Your task to perform on an android device: uninstall "Contacts" Image 0: 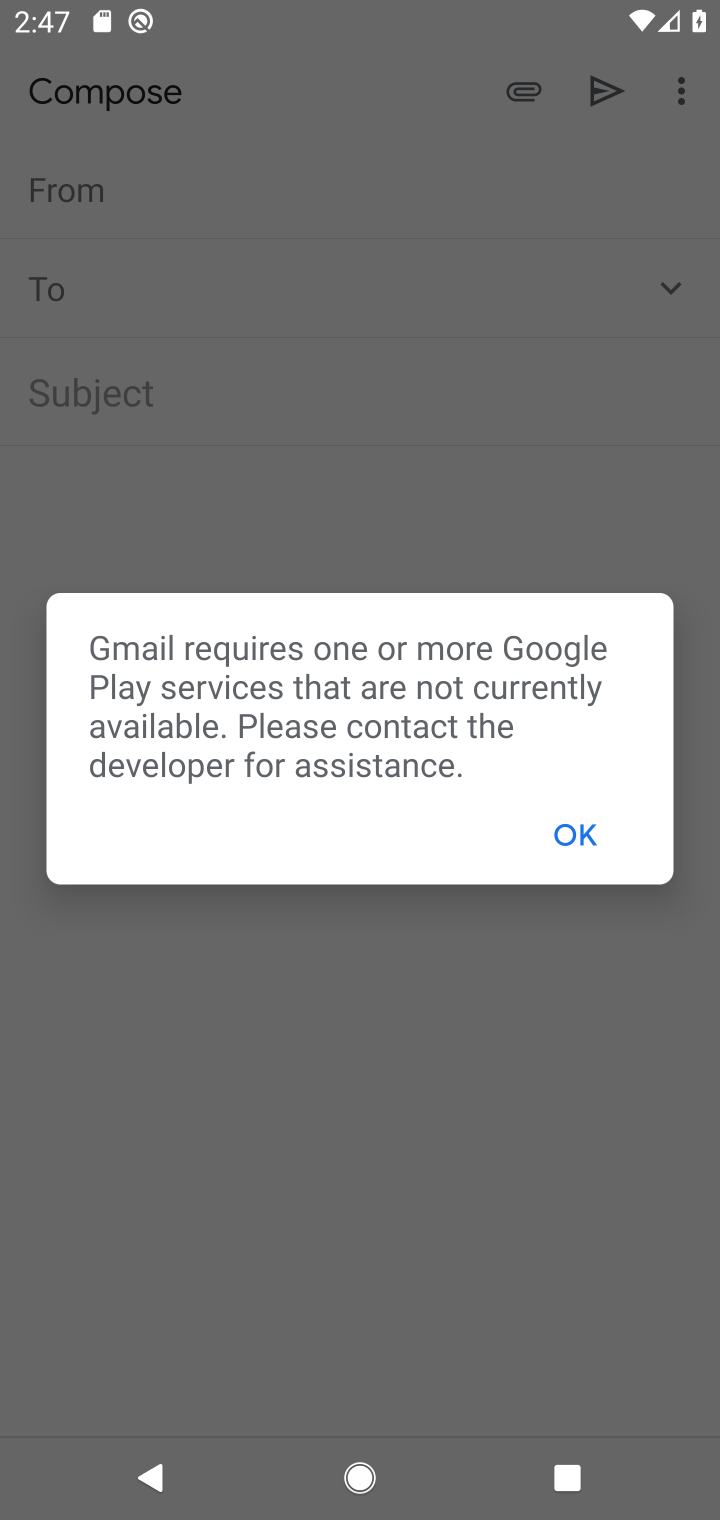
Step 0: press home button
Your task to perform on an android device: uninstall "Contacts" Image 1: 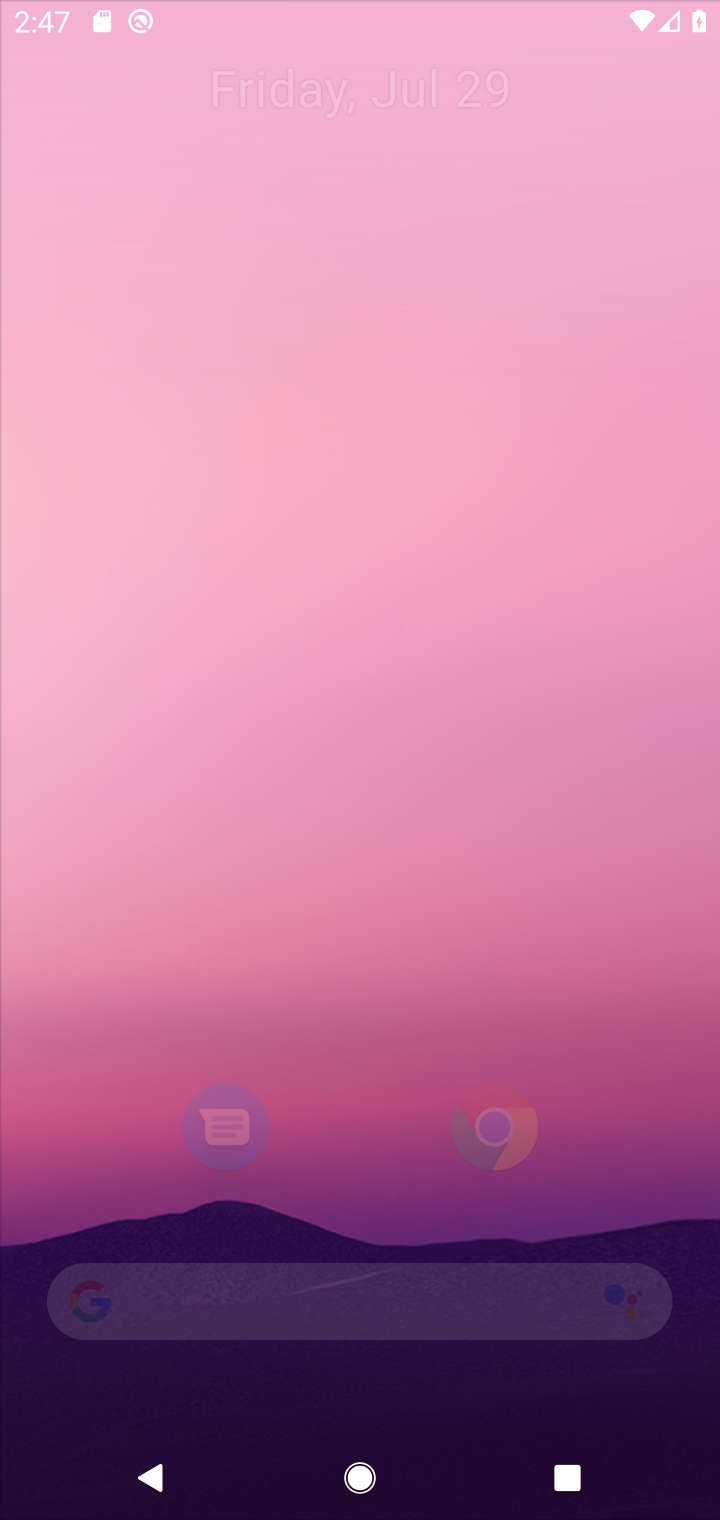
Step 1: press home button
Your task to perform on an android device: uninstall "Contacts" Image 2: 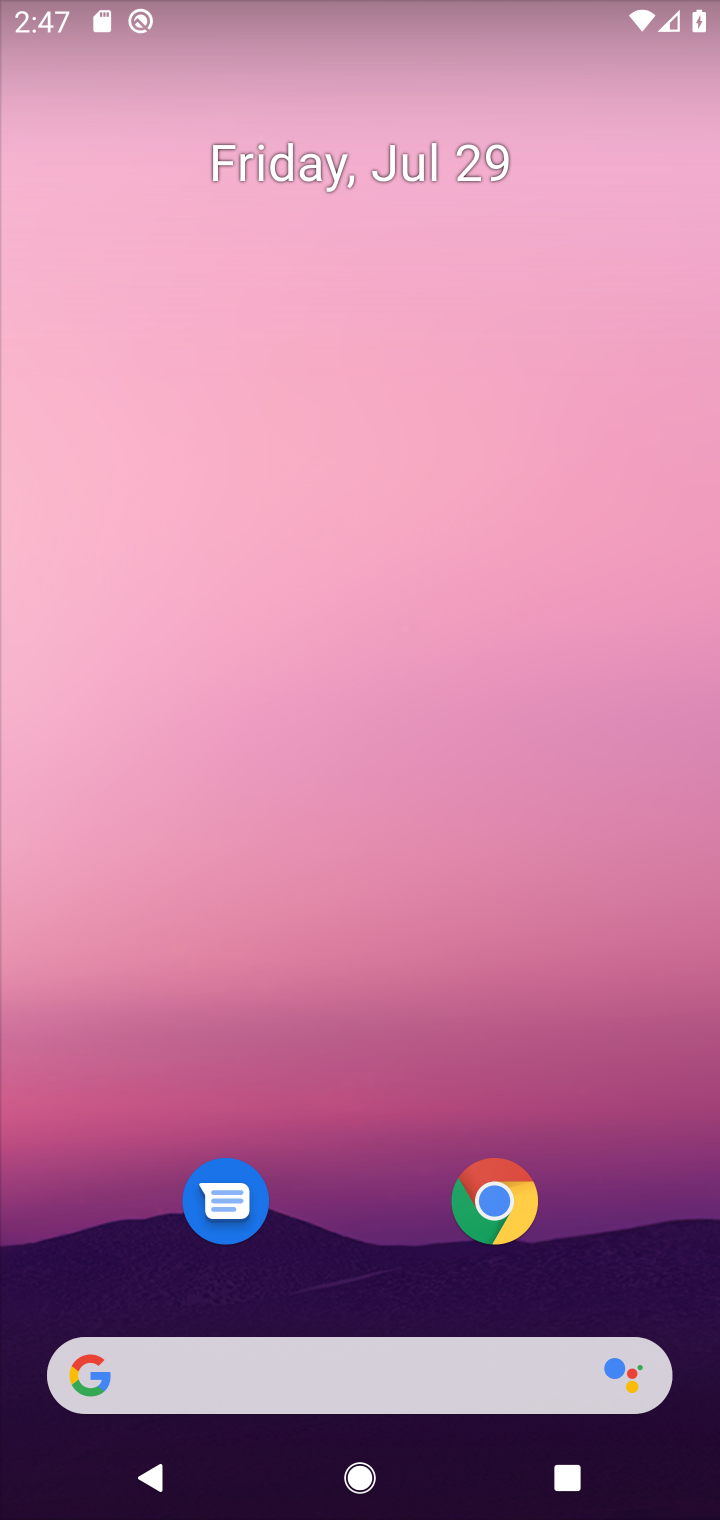
Step 2: press home button
Your task to perform on an android device: uninstall "Contacts" Image 3: 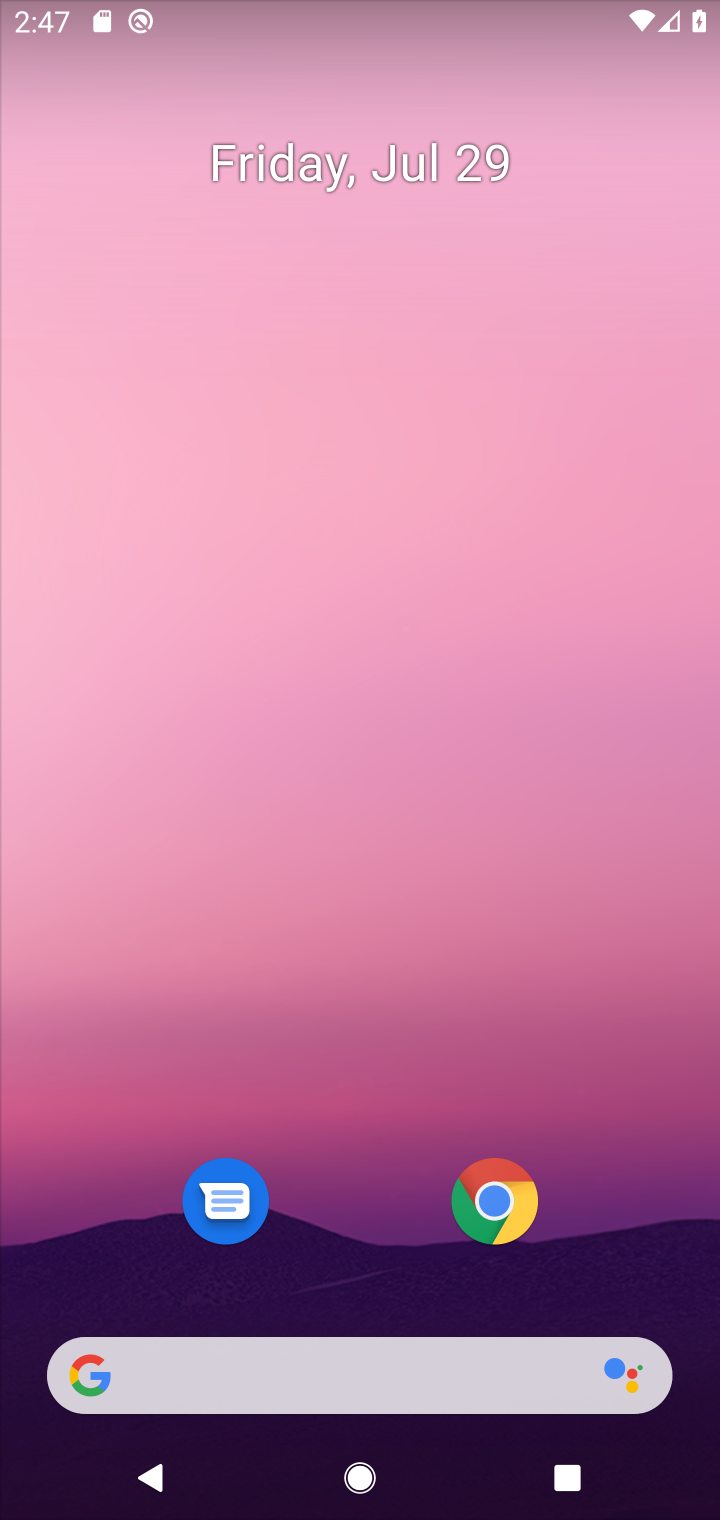
Step 3: click (556, 562)
Your task to perform on an android device: uninstall "Contacts" Image 4: 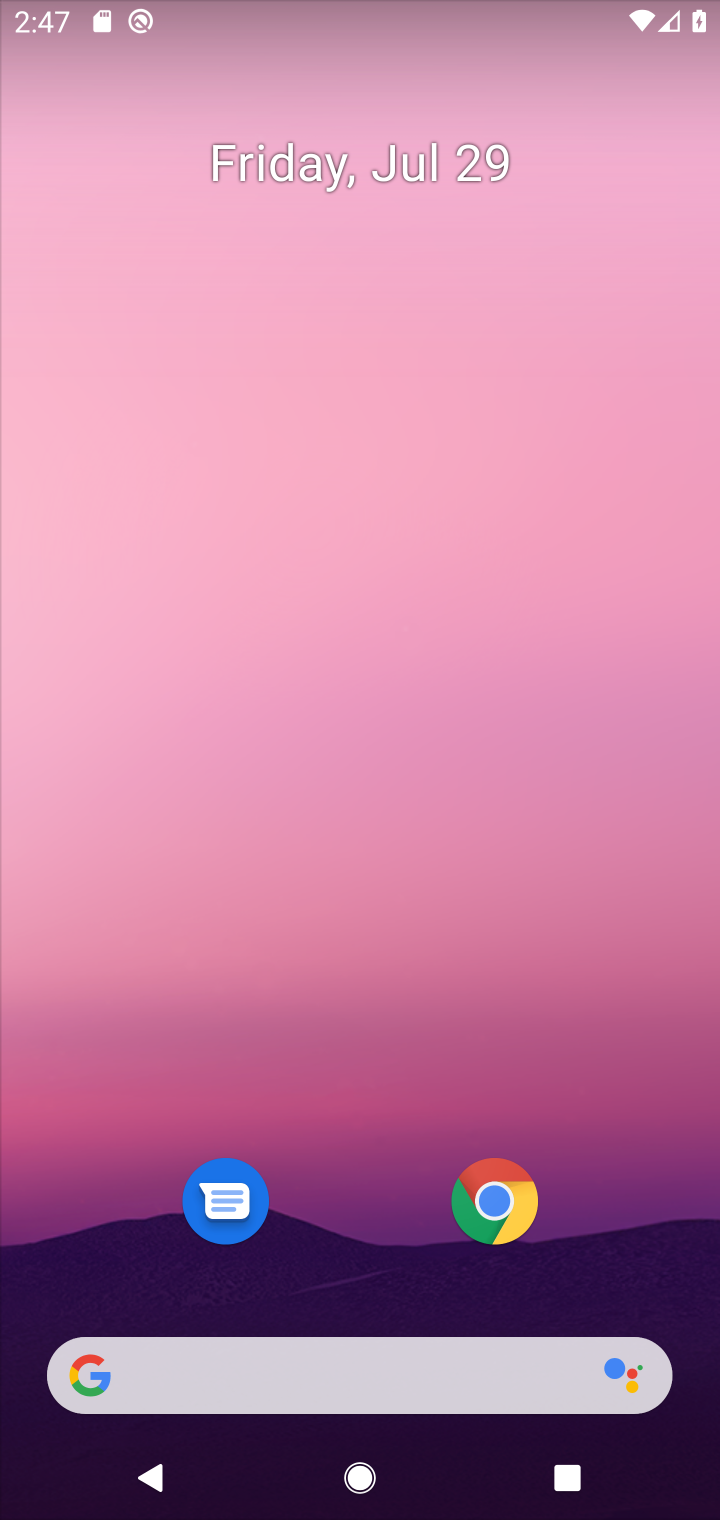
Step 4: drag from (472, 955) to (483, 311)
Your task to perform on an android device: uninstall "Contacts" Image 5: 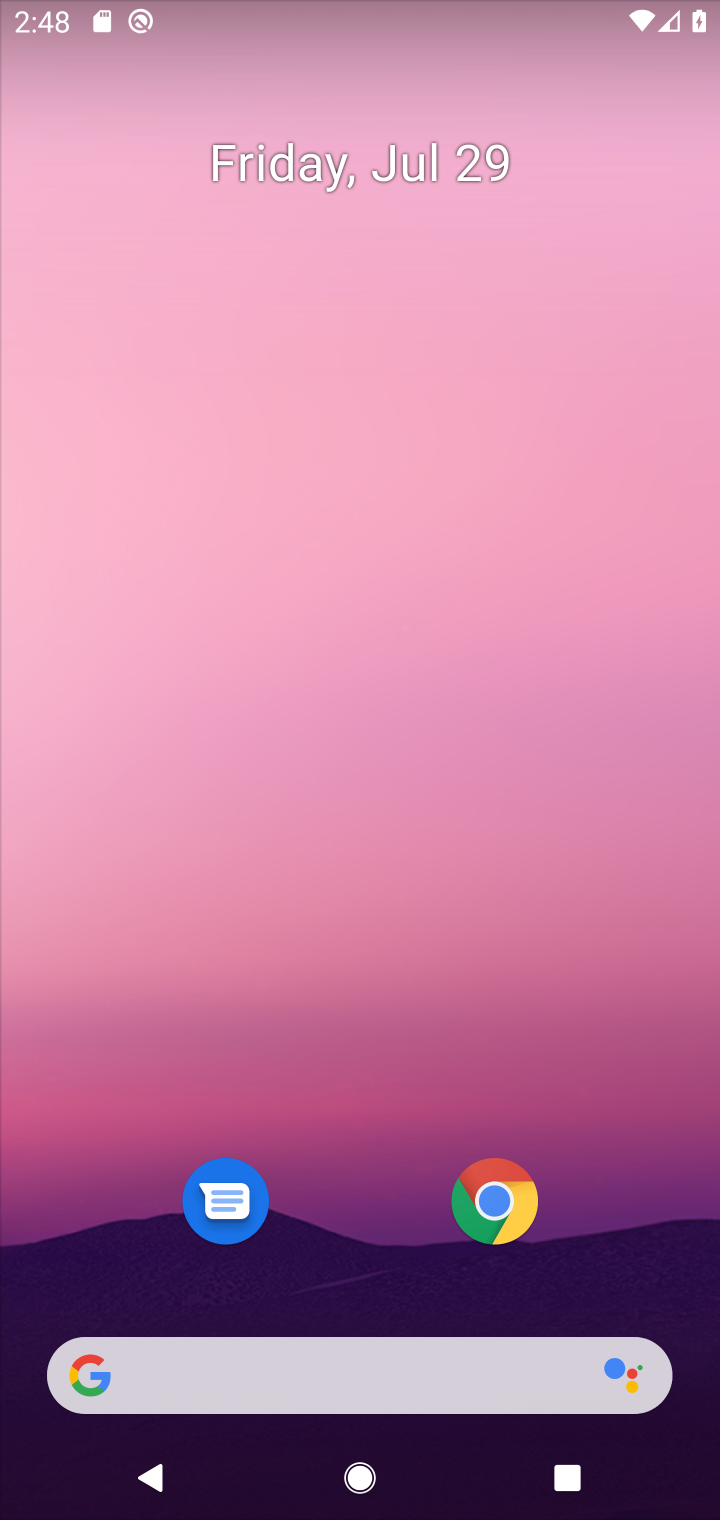
Step 5: drag from (371, 776) to (429, 71)
Your task to perform on an android device: uninstall "Contacts" Image 6: 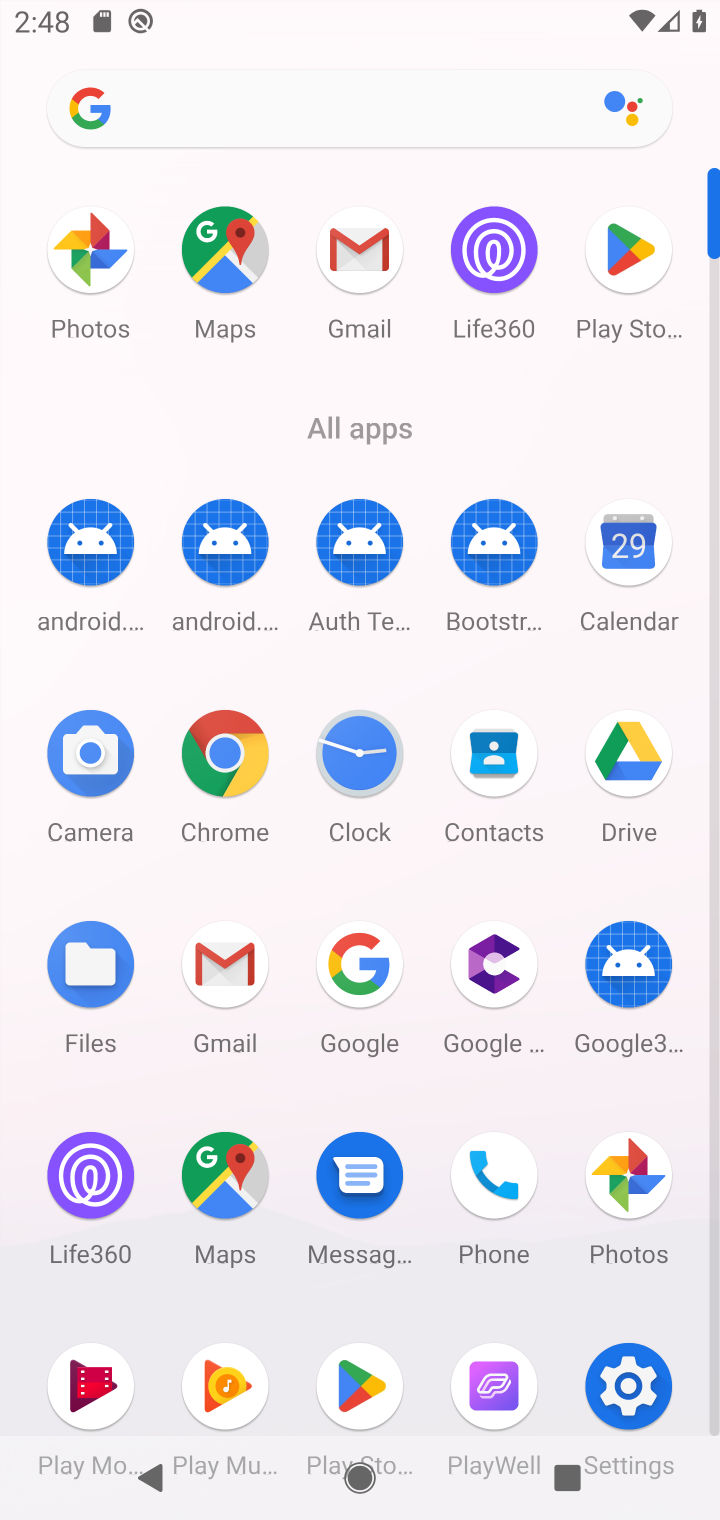
Step 6: click (608, 283)
Your task to perform on an android device: uninstall "Contacts" Image 7: 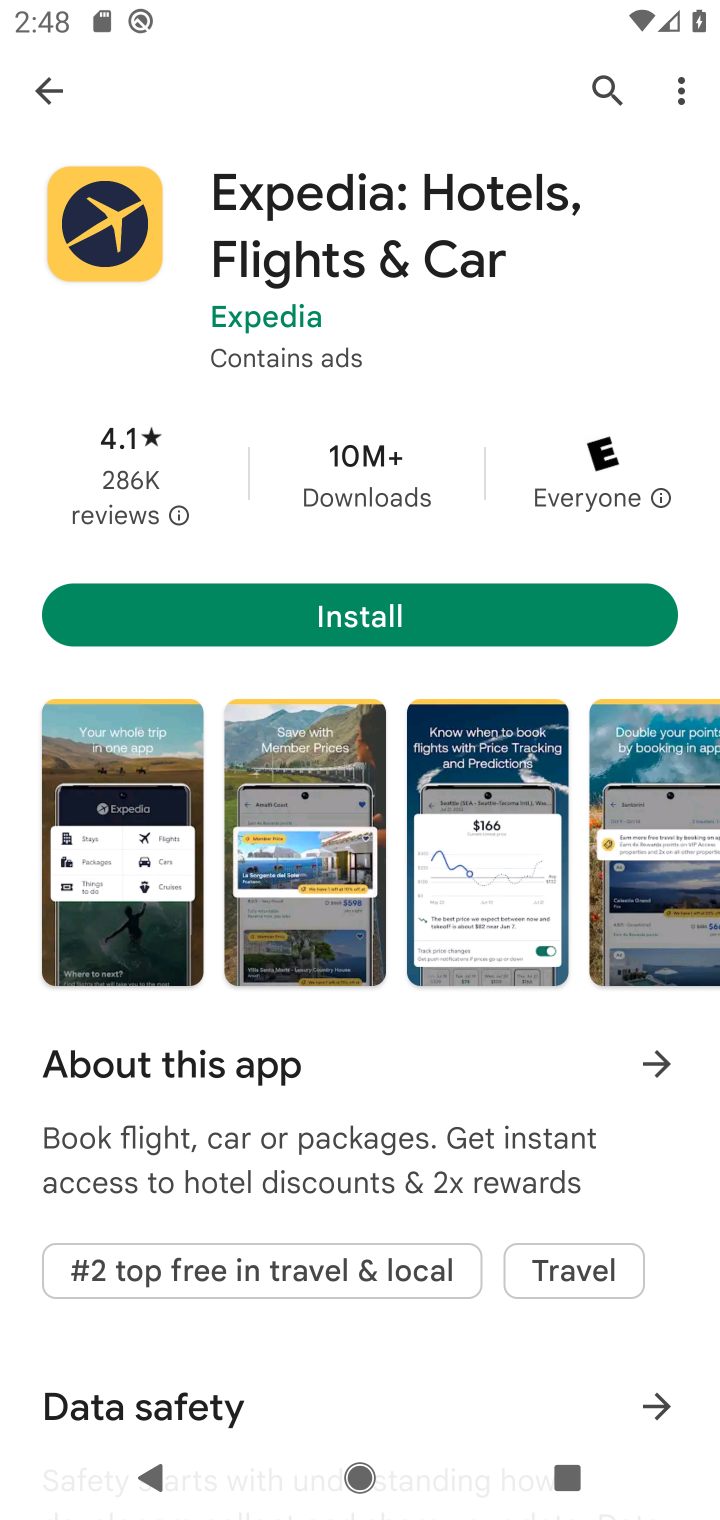
Step 7: click (588, 78)
Your task to perform on an android device: uninstall "Contacts" Image 8: 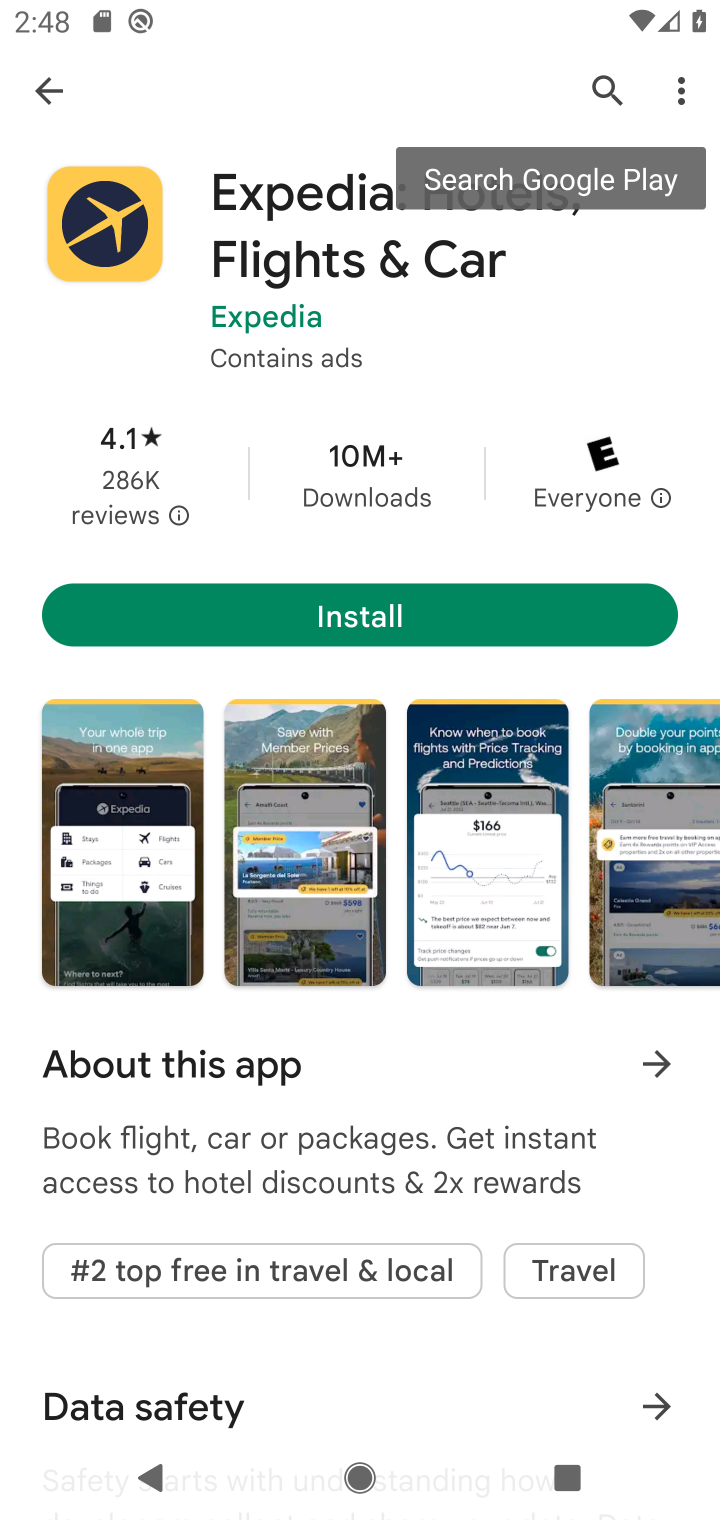
Step 8: click (588, 78)
Your task to perform on an android device: uninstall "Contacts" Image 9: 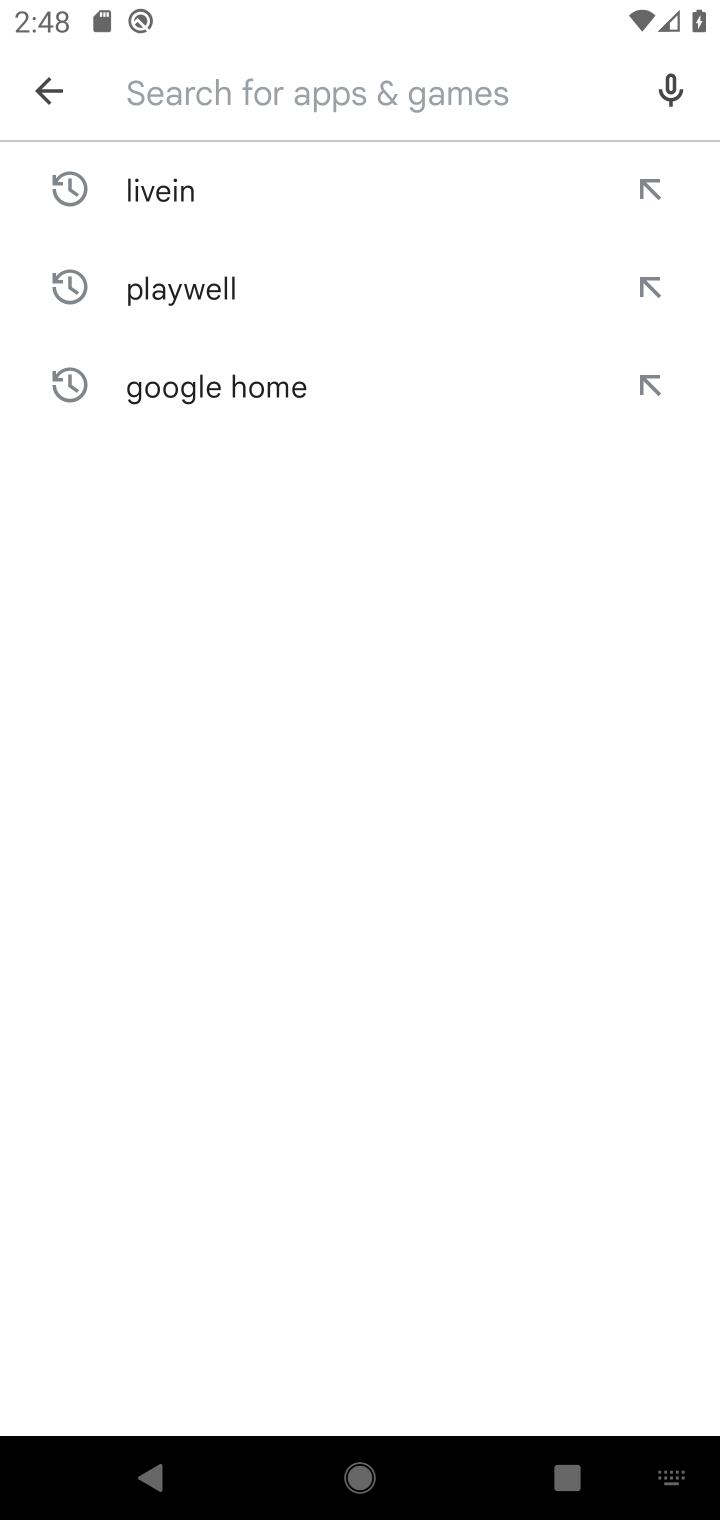
Step 9: click (455, 93)
Your task to perform on an android device: uninstall "Contacts" Image 10: 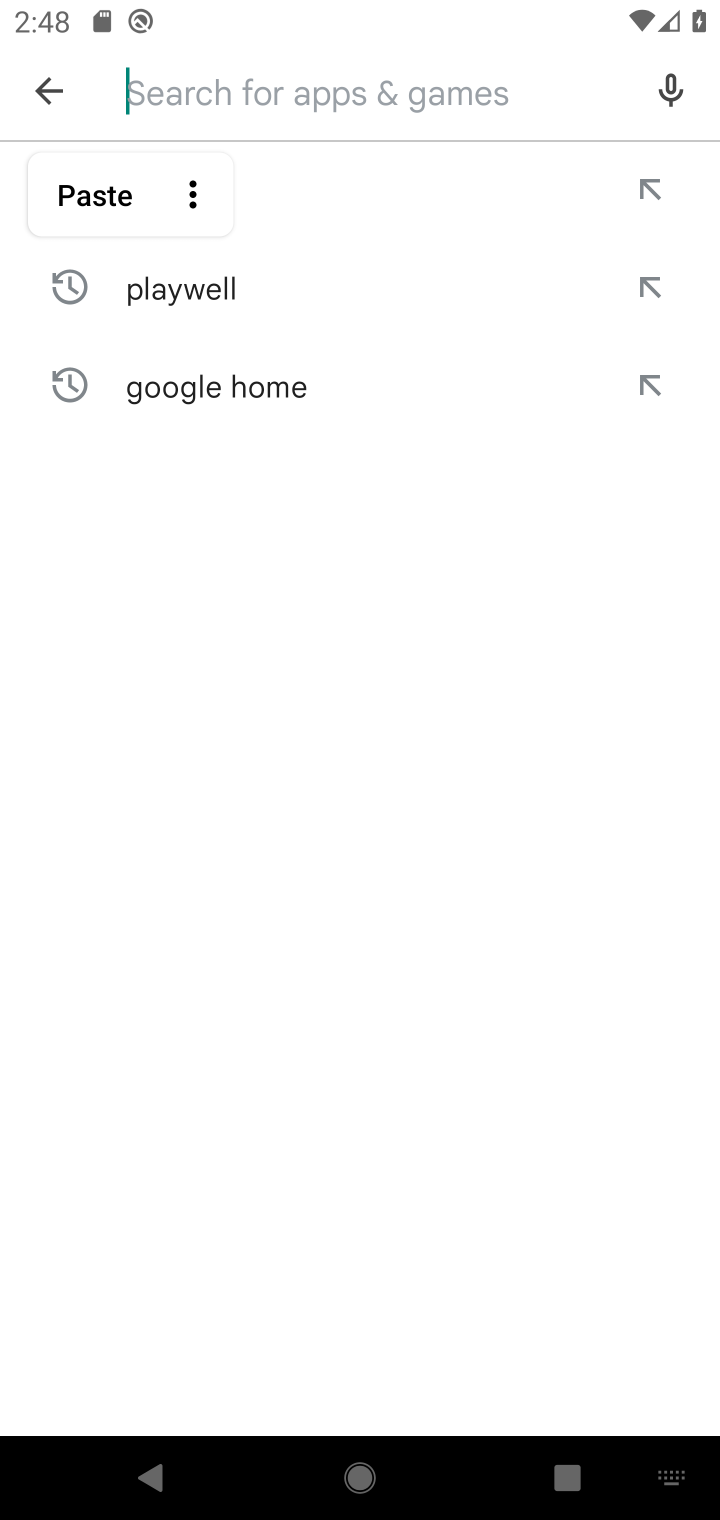
Step 10: type "contacts"
Your task to perform on an android device: uninstall "Contacts" Image 11: 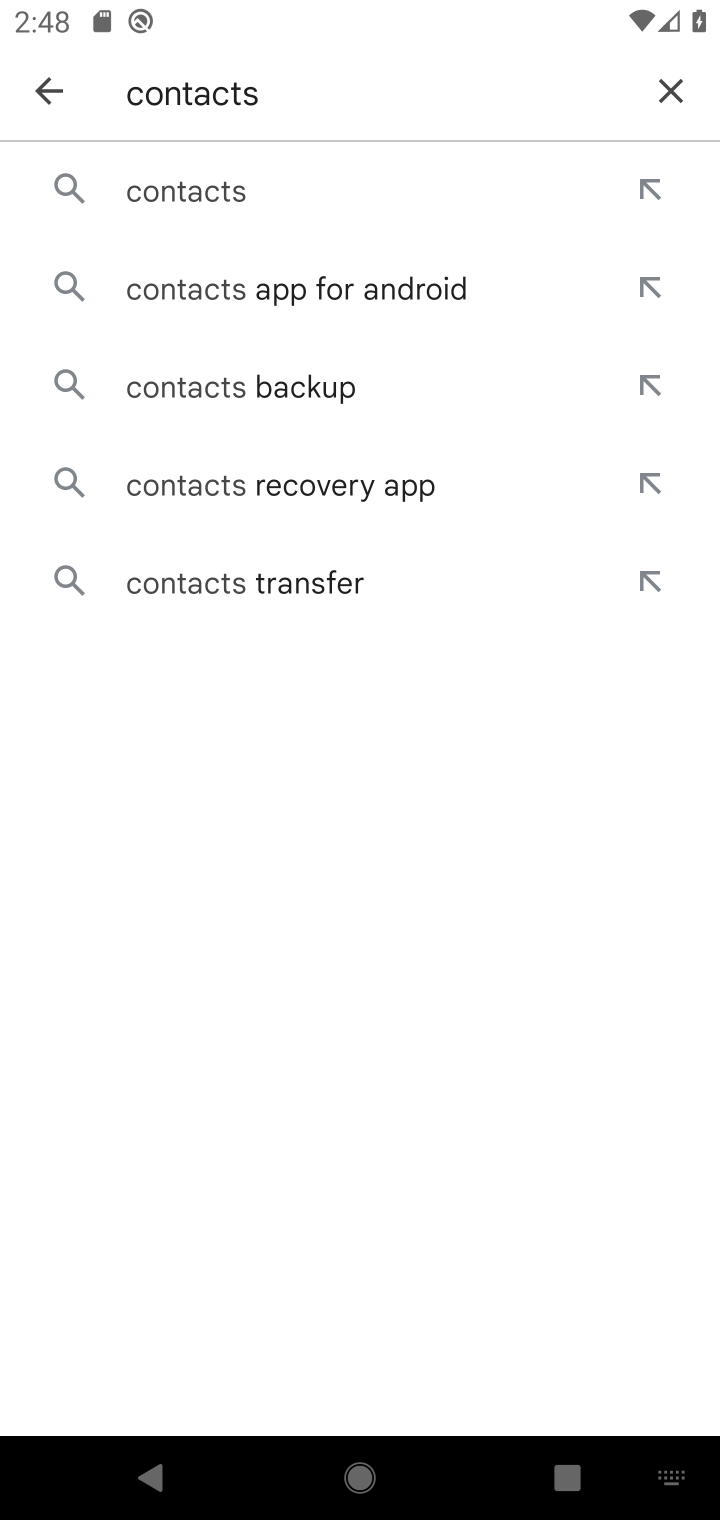
Step 11: click (178, 197)
Your task to perform on an android device: uninstall "Contacts" Image 12: 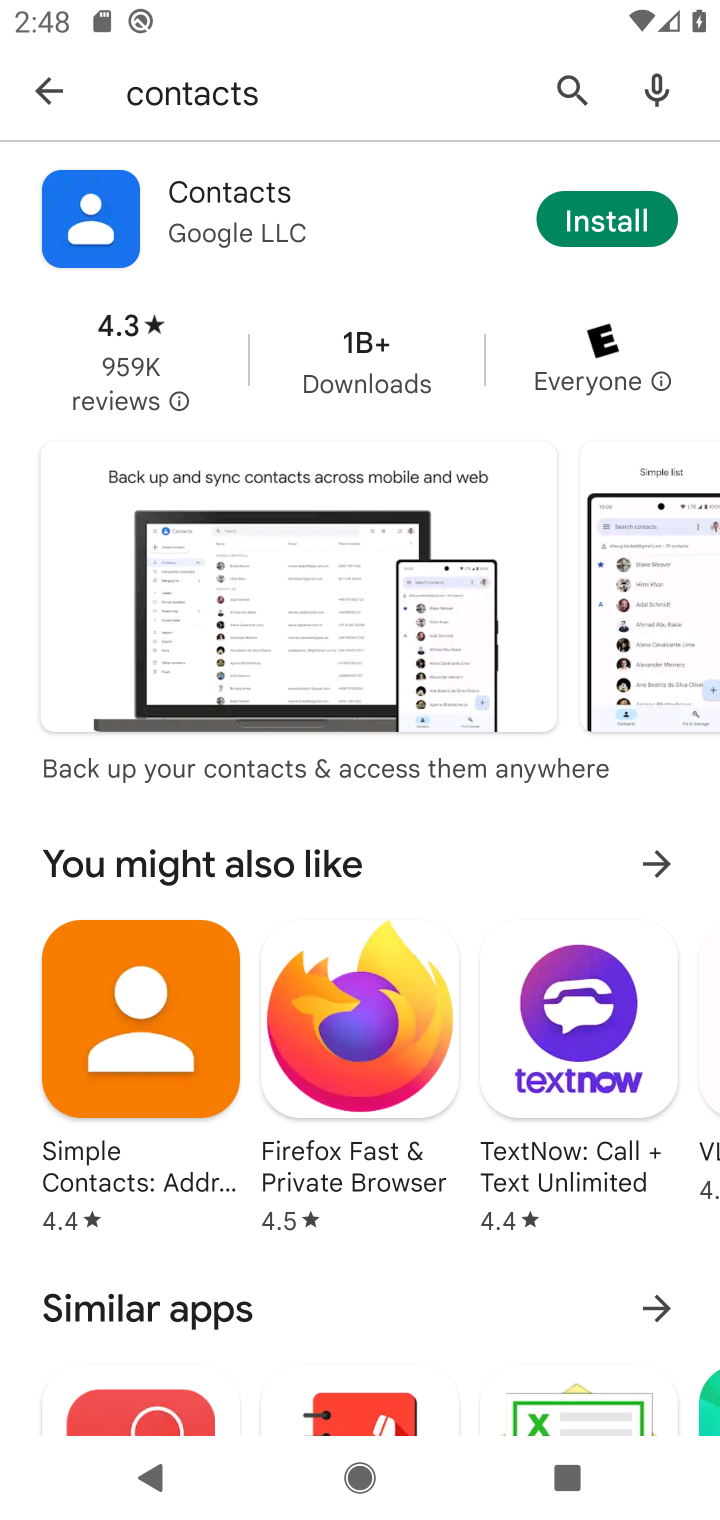
Step 12: click (215, 198)
Your task to perform on an android device: uninstall "Contacts" Image 13: 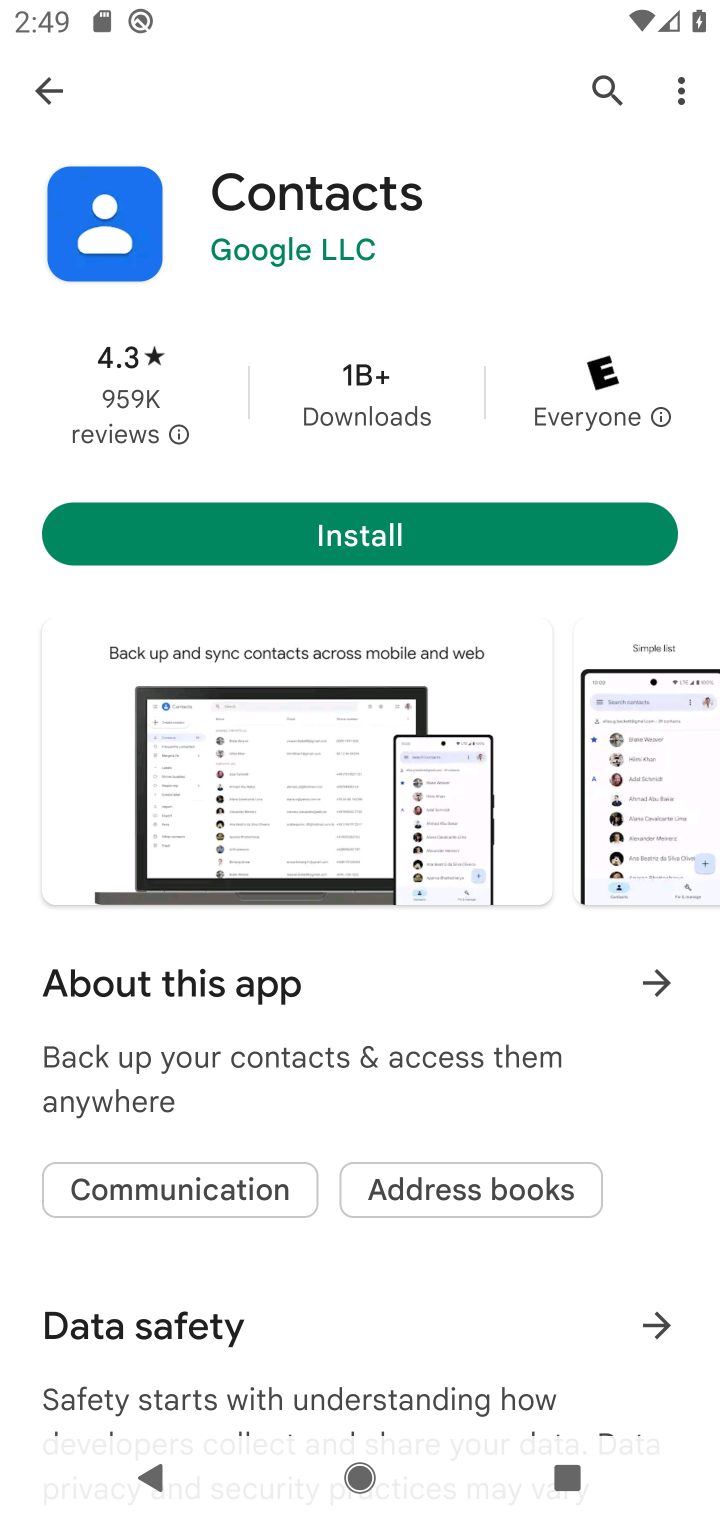
Step 13: task complete